Your task to perform on an android device: check the backup settings in the google photos Image 0: 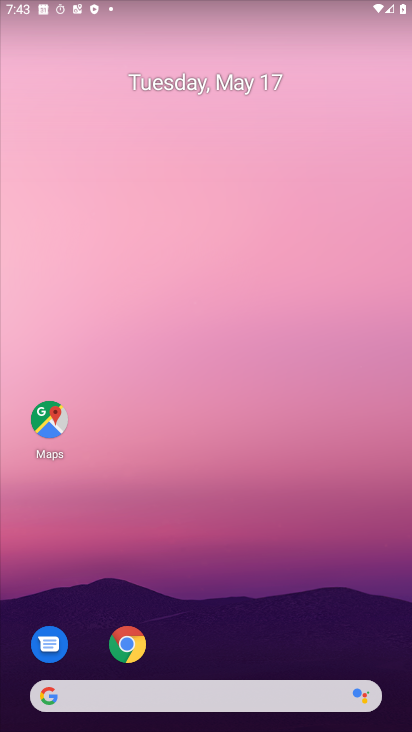
Step 0: drag from (341, 624) to (226, 127)
Your task to perform on an android device: check the backup settings in the google photos Image 1: 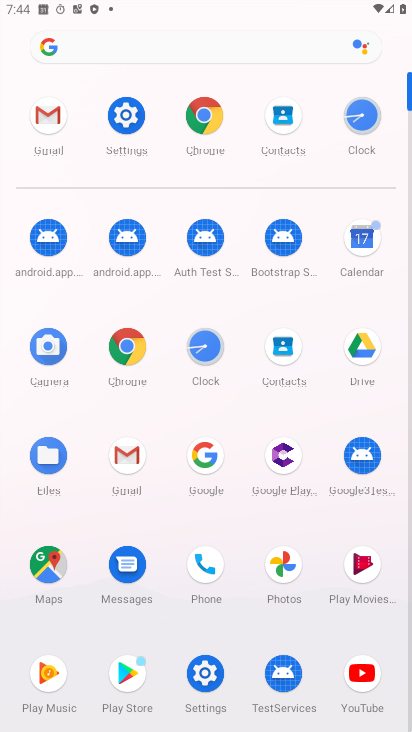
Step 1: click (273, 563)
Your task to perform on an android device: check the backup settings in the google photos Image 2: 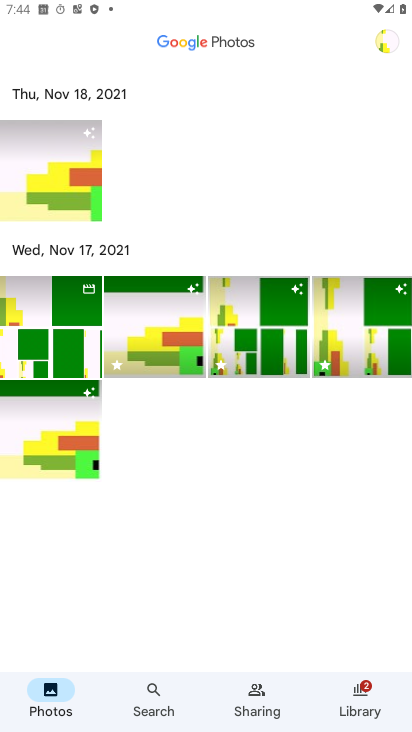
Step 2: click (397, 41)
Your task to perform on an android device: check the backup settings in the google photos Image 3: 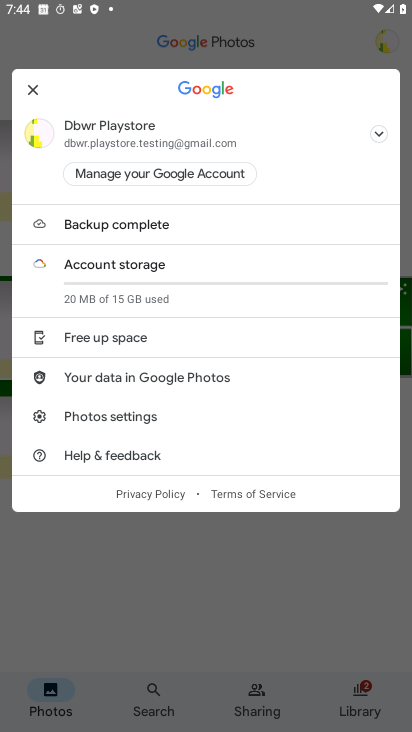
Step 3: click (105, 430)
Your task to perform on an android device: check the backup settings in the google photos Image 4: 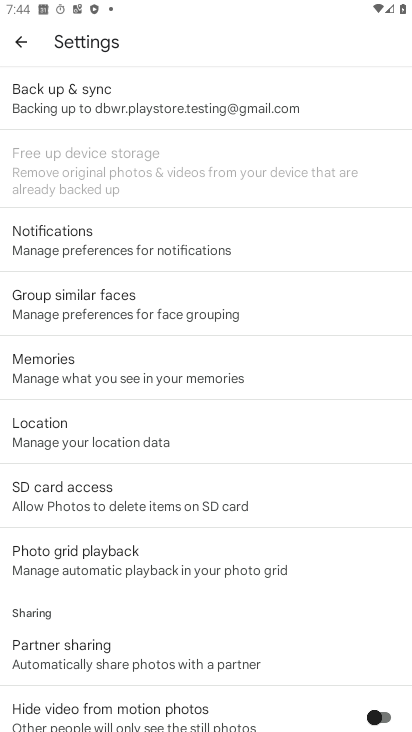
Step 4: click (158, 80)
Your task to perform on an android device: check the backup settings in the google photos Image 5: 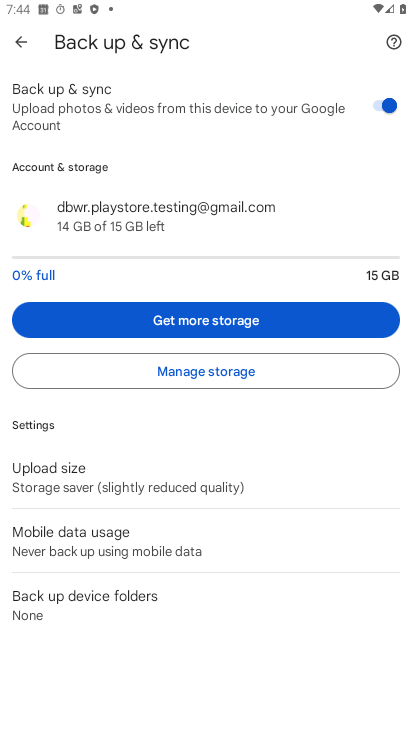
Step 5: task complete